Your task to perform on an android device: Search for "macbook pro 13 inch" on newegg.com, select the first entry, add it to the cart, then select checkout. Image 0: 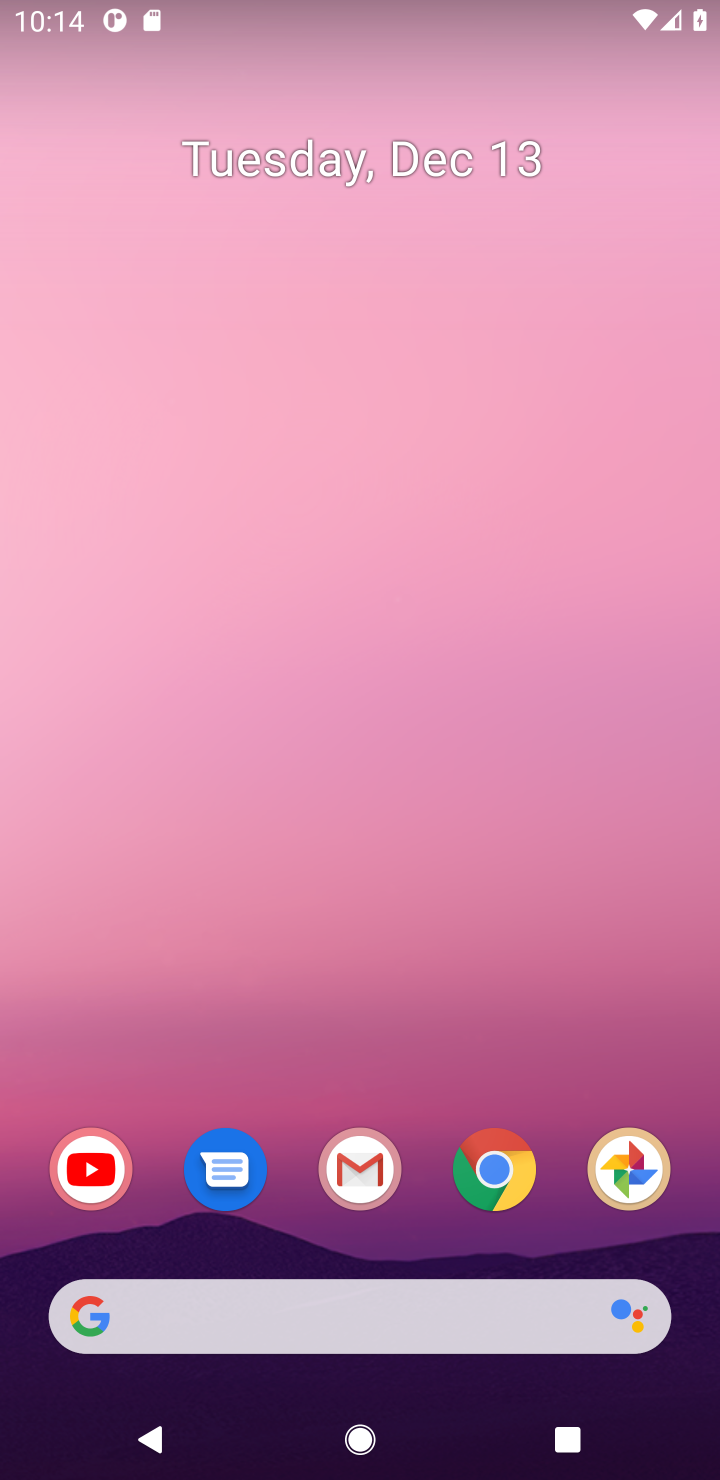
Step 0: click (328, 1327)
Your task to perform on an android device: Search for "macbook pro 13 inch" on newegg.com, select the first entry, add it to the cart, then select checkout. Image 1: 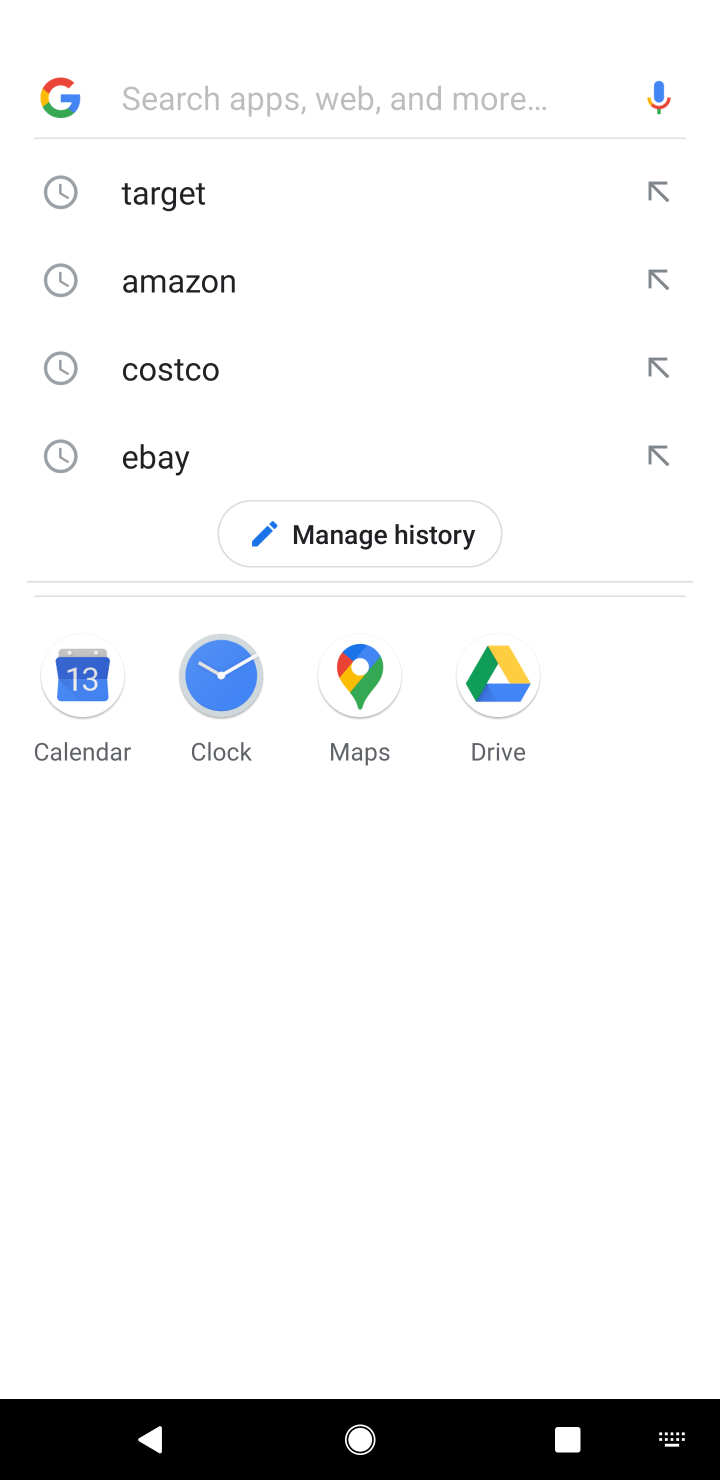
Step 1: type "newegg"
Your task to perform on an android device: Search for "macbook pro 13 inch" on newegg.com, select the first entry, add it to the cart, then select checkout. Image 2: 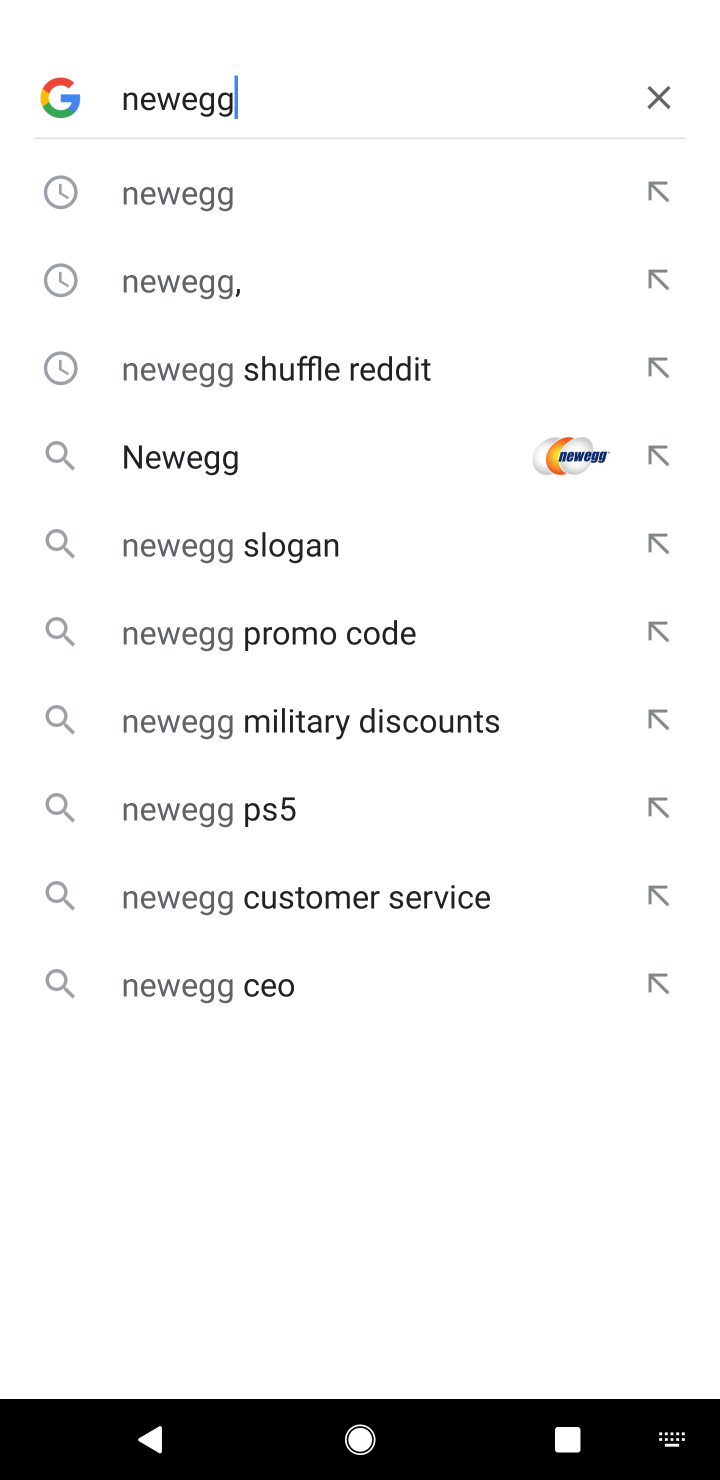
Step 2: click (243, 484)
Your task to perform on an android device: Search for "macbook pro 13 inch" on newegg.com, select the first entry, add it to the cart, then select checkout. Image 3: 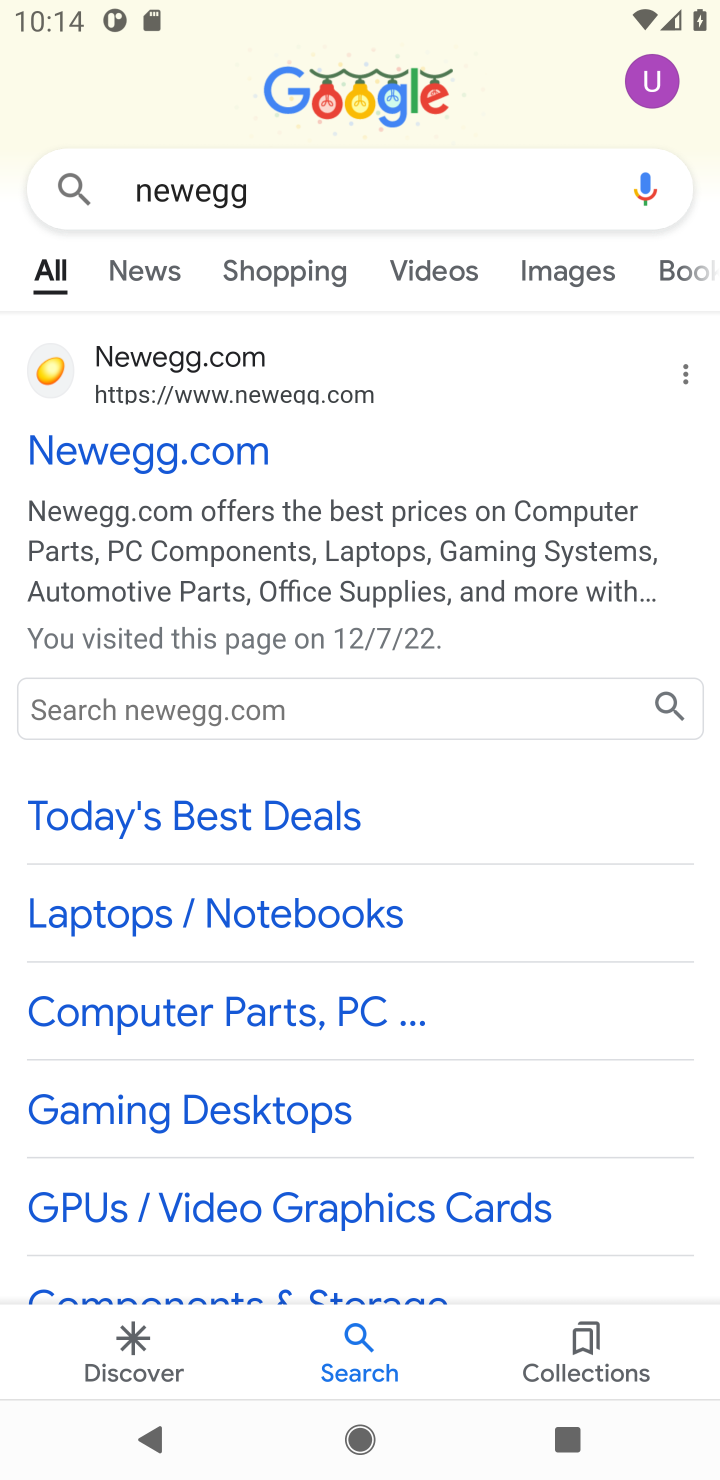
Step 3: click (186, 484)
Your task to perform on an android device: Search for "macbook pro 13 inch" on newegg.com, select the first entry, add it to the cart, then select checkout. Image 4: 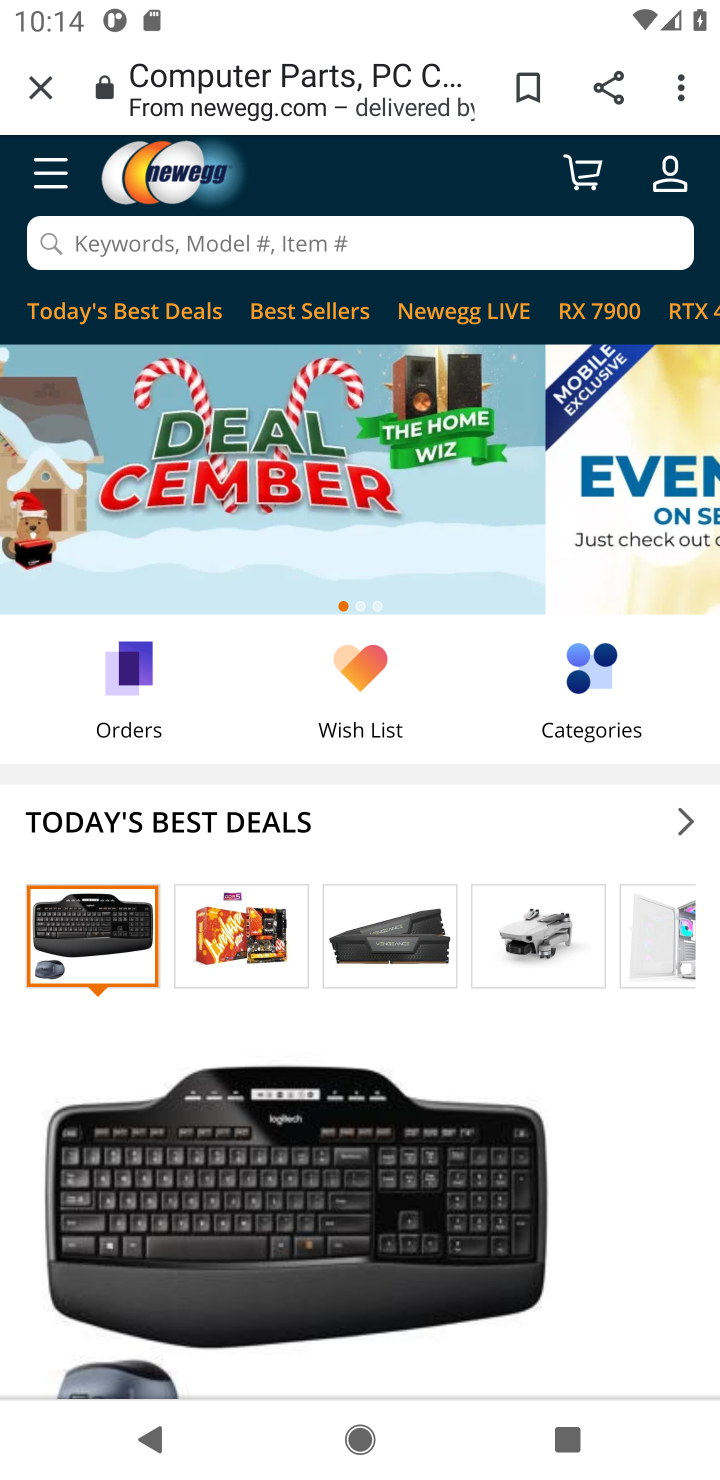
Step 4: click (214, 249)
Your task to perform on an android device: Search for "macbook pro 13 inch" on newegg.com, select the first entry, add it to the cart, then select checkout. Image 5: 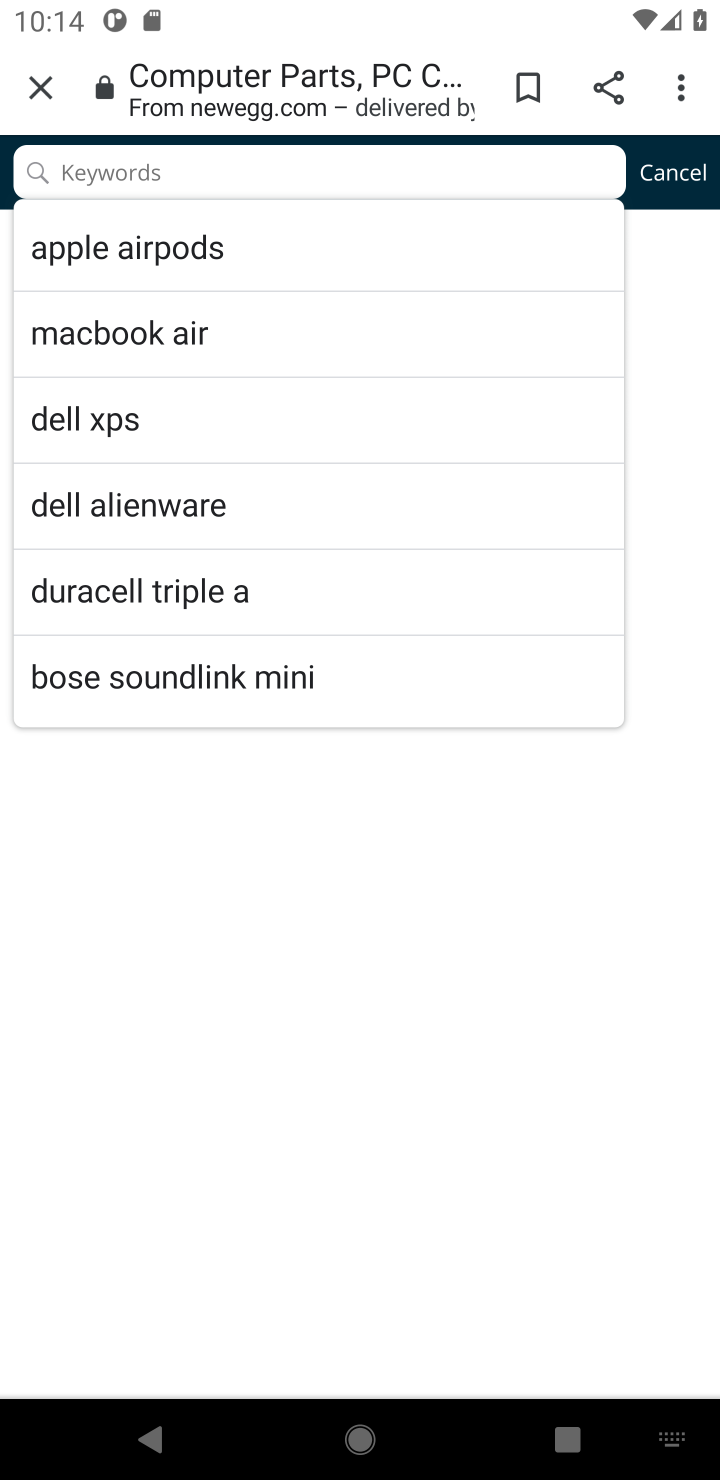
Step 5: type "macbook pro 13"
Your task to perform on an android device: Search for "macbook pro 13 inch" on newegg.com, select the first entry, add it to the cart, then select checkout. Image 6: 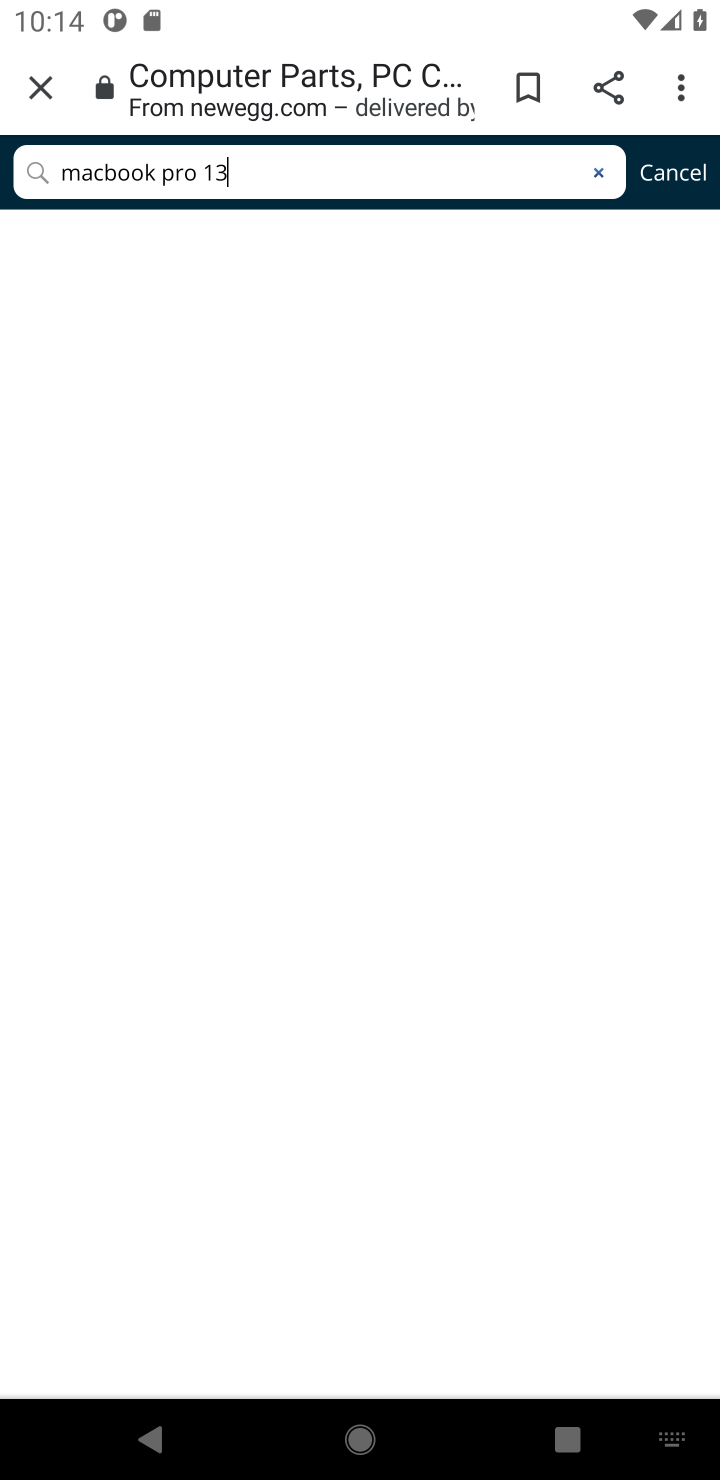
Step 6: task complete